Your task to perform on an android device: turn on showing notifications on the lock screen Image 0: 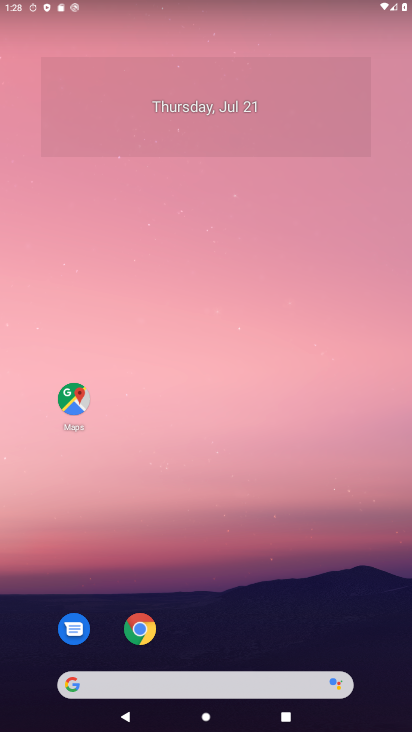
Step 0: drag from (43, 616) to (202, 76)
Your task to perform on an android device: turn on showing notifications on the lock screen Image 1: 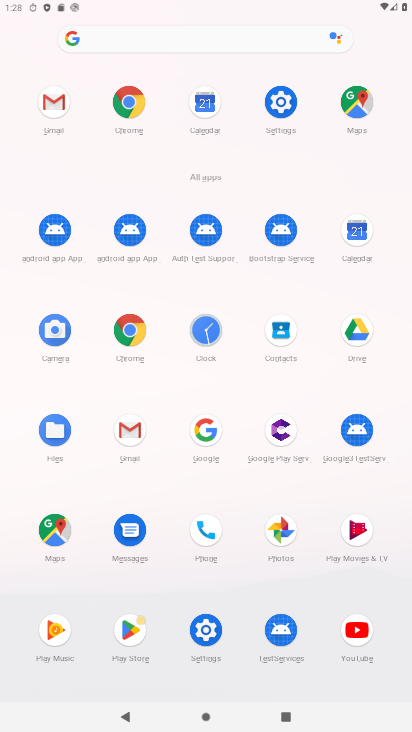
Step 1: click (206, 630)
Your task to perform on an android device: turn on showing notifications on the lock screen Image 2: 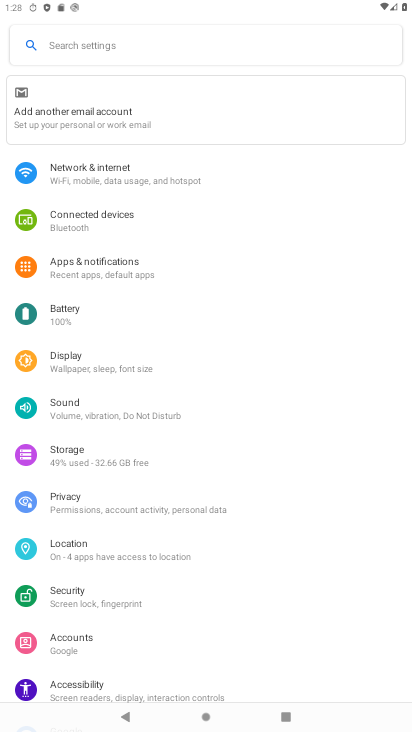
Step 2: click (84, 245)
Your task to perform on an android device: turn on showing notifications on the lock screen Image 3: 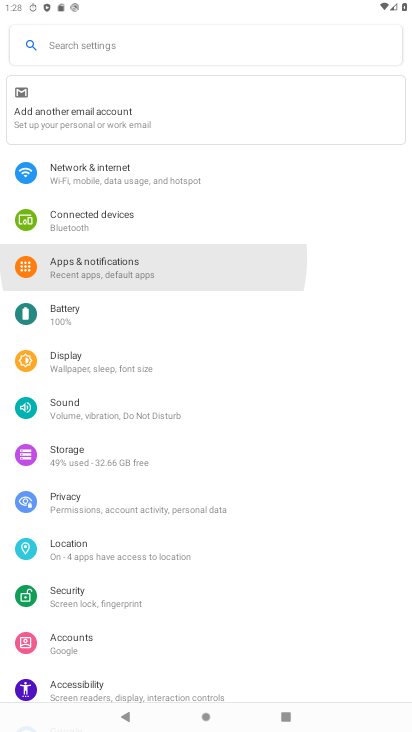
Step 3: click (85, 257)
Your task to perform on an android device: turn on showing notifications on the lock screen Image 4: 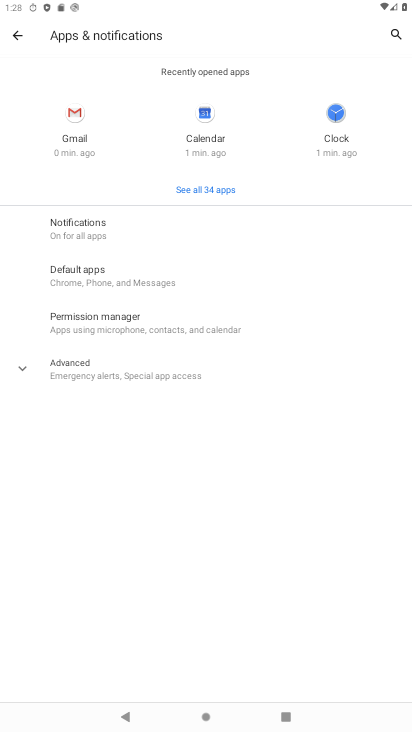
Step 4: click (100, 233)
Your task to perform on an android device: turn on showing notifications on the lock screen Image 5: 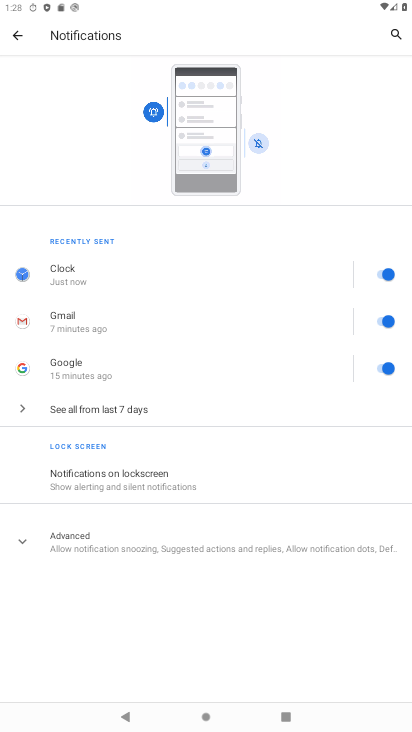
Step 5: click (108, 542)
Your task to perform on an android device: turn on showing notifications on the lock screen Image 6: 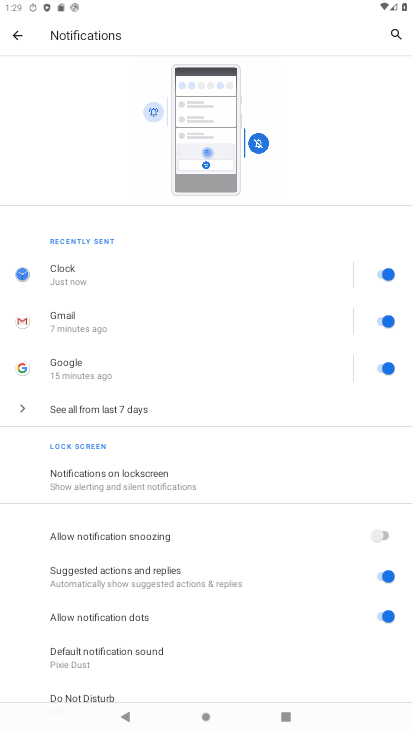
Step 6: drag from (218, 652) to (299, 251)
Your task to perform on an android device: turn on showing notifications on the lock screen Image 7: 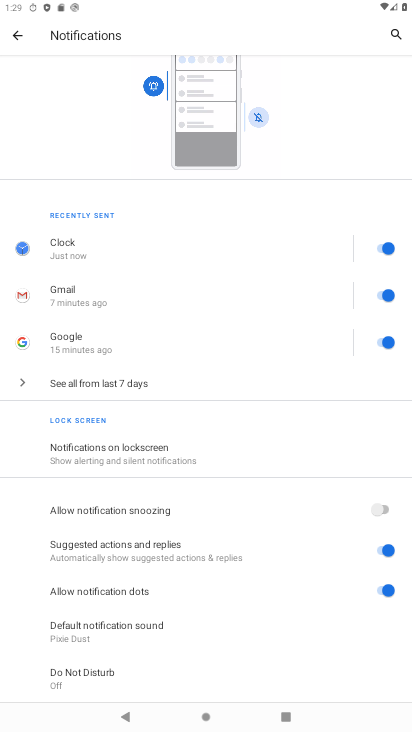
Step 7: click (162, 454)
Your task to perform on an android device: turn on showing notifications on the lock screen Image 8: 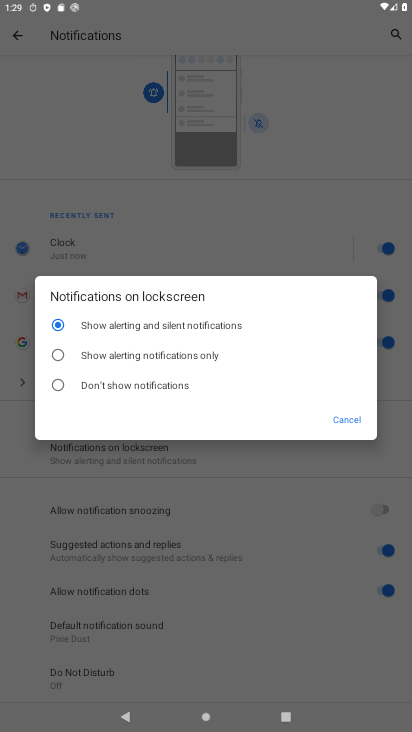
Step 8: task complete